Your task to perform on an android device: What's on my calendar tomorrow? Image 0: 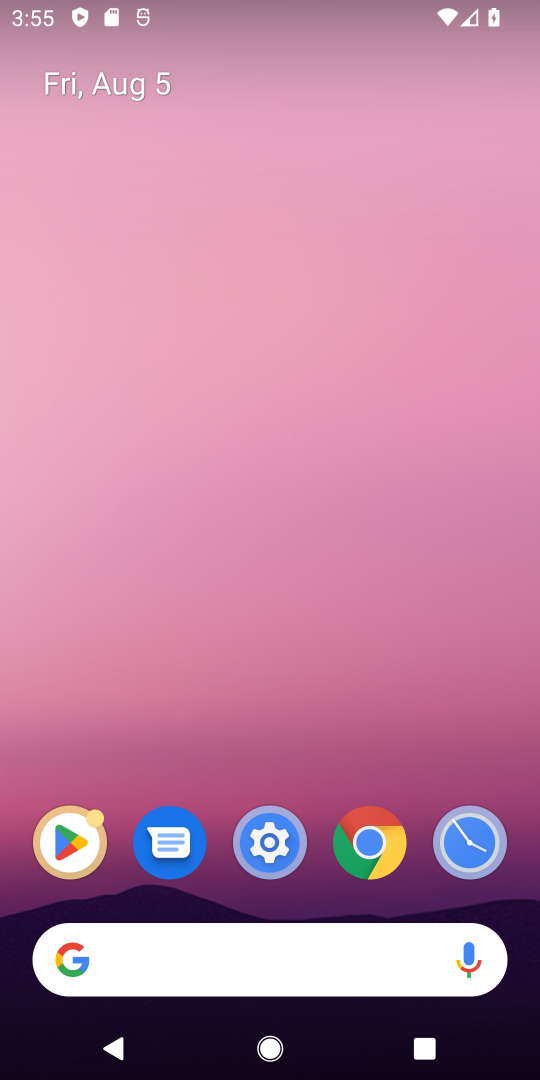
Step 0: drag from (433, 722) to (360, 328)
Your task to perform on an android device: What's on my calendar tomorrow? Image 1: 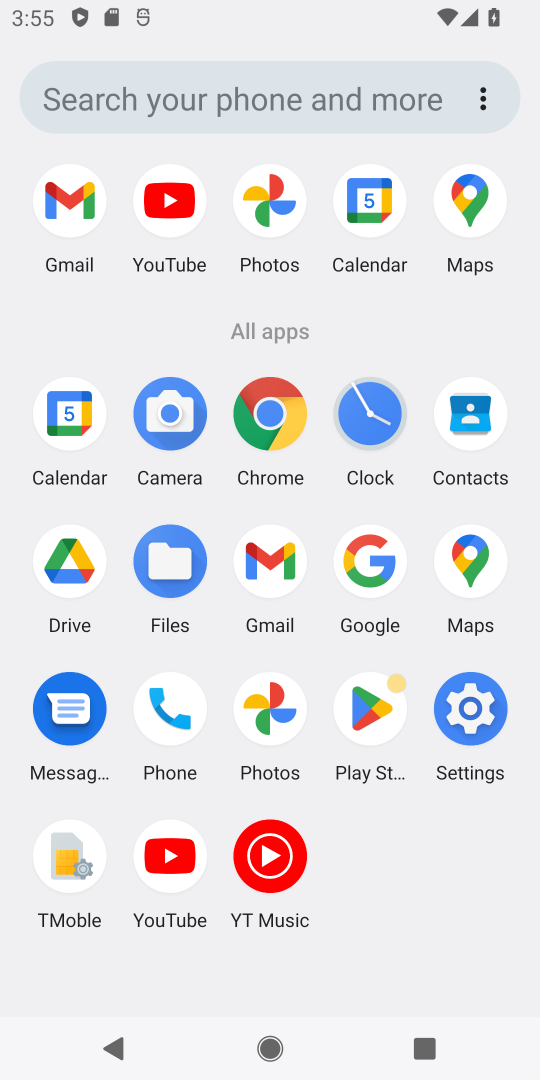
Step 1: click (72, 411)
Your task to perform on an android device: What's on my calendar tomorrow? Image 2: 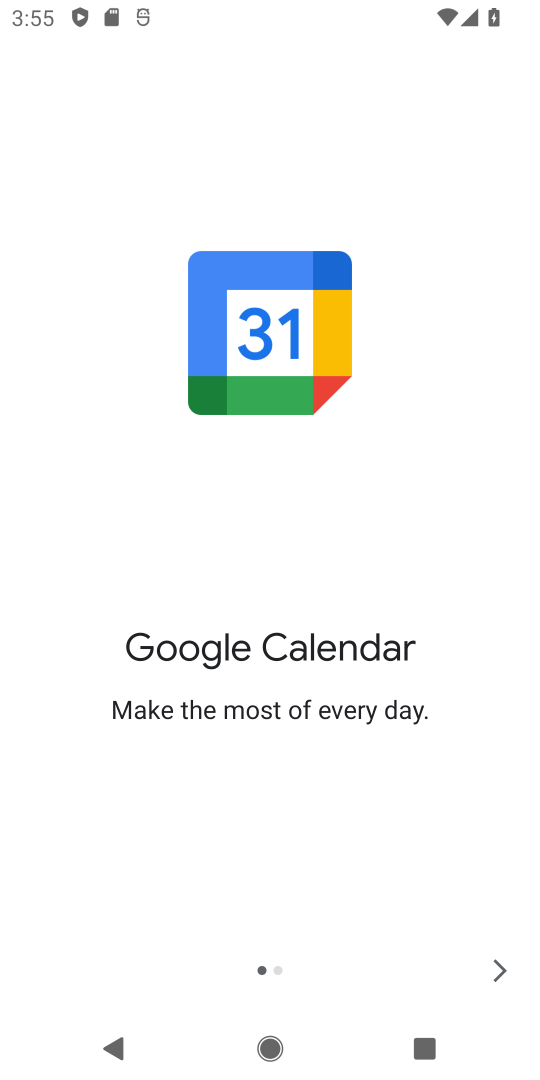
Step 2: click (503, 977)
Your task to perform on an android device: What's on my calendar tomorrow? Image 3: 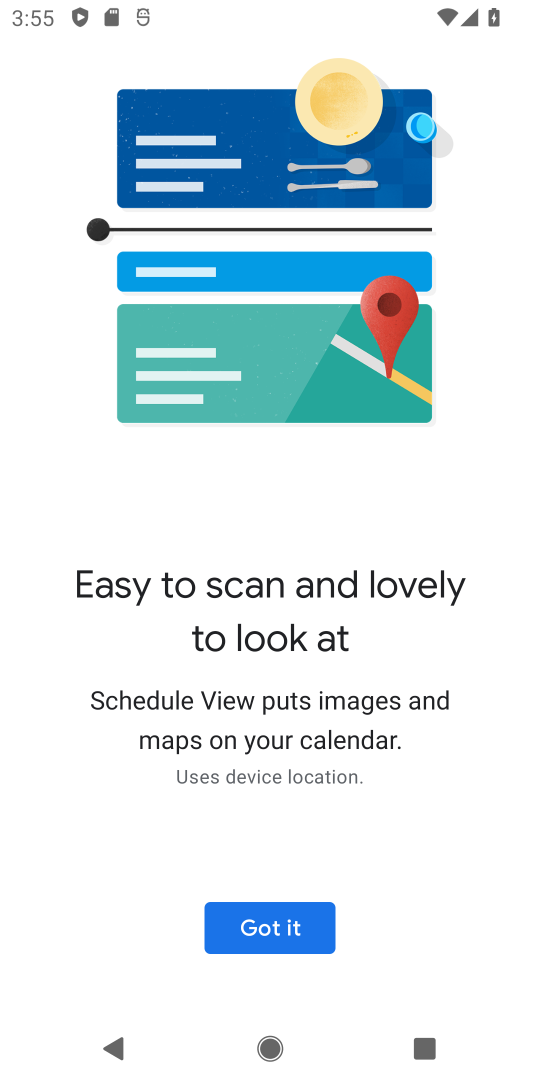
Step 3: click (258, 928)
Your task to perform on an android device: What's on my calendar tomorrow? Image 4: 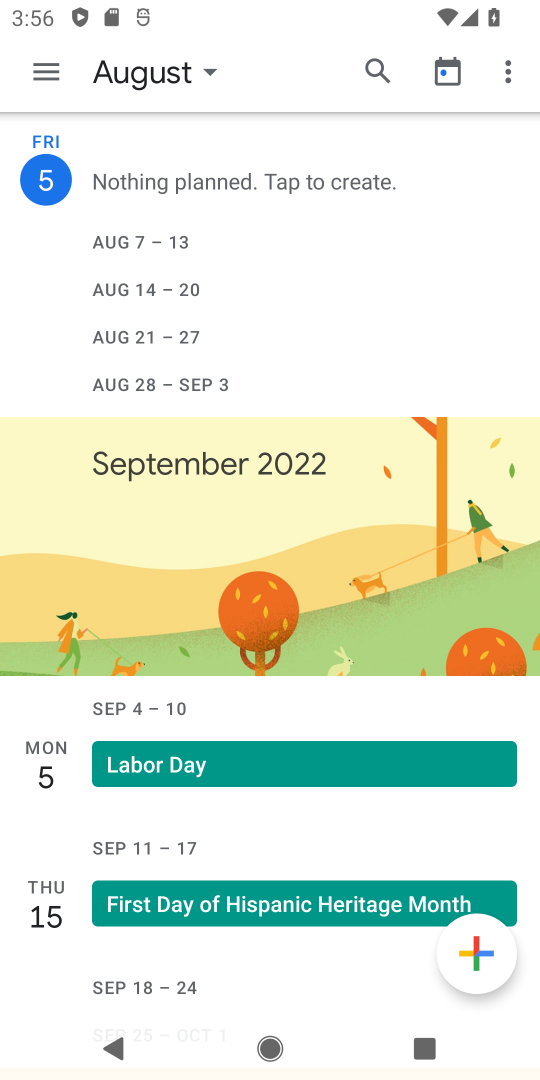
Step 4: click (27, 64)
Your task to perform on an android device: What's on my calendar tomorrow? Image 5: 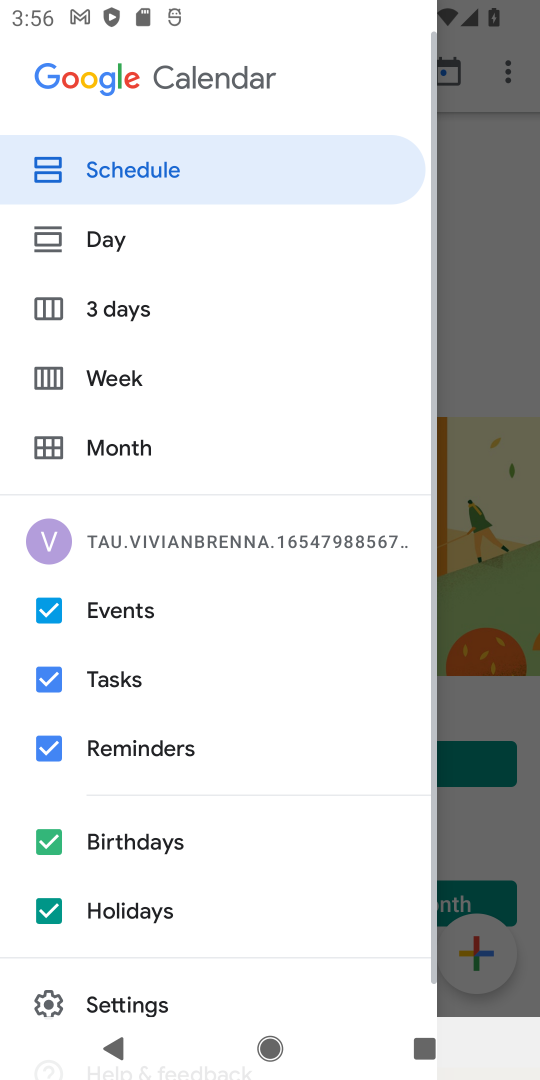
Step 5: click (145, 235)
Your task to perform on an android device: What's on my calendar tomorrow? Image 6: 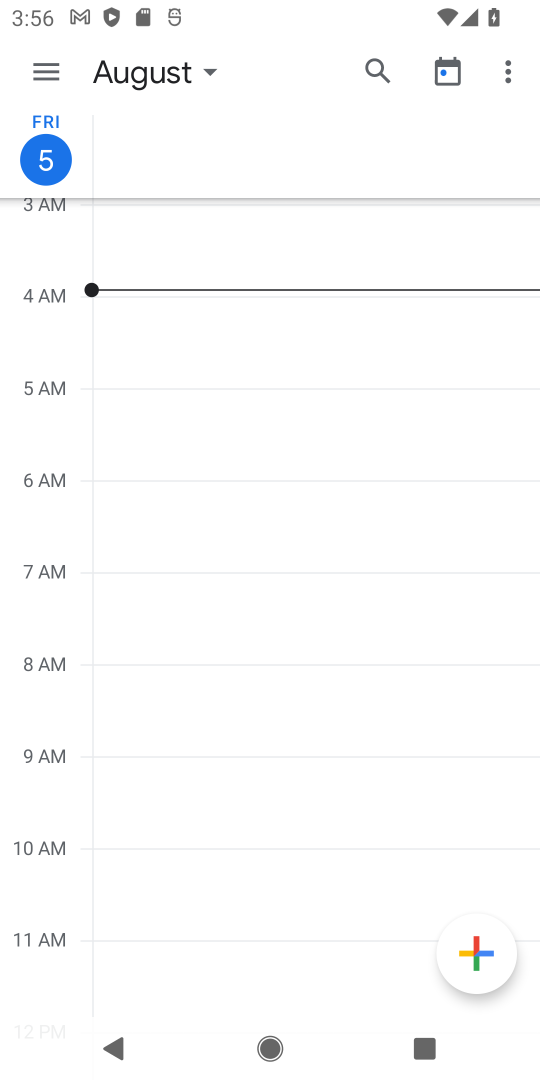
Step 6: click (170, 71)
Your task to perform on an android device: What's on my calendar tomorrow? Image 7: 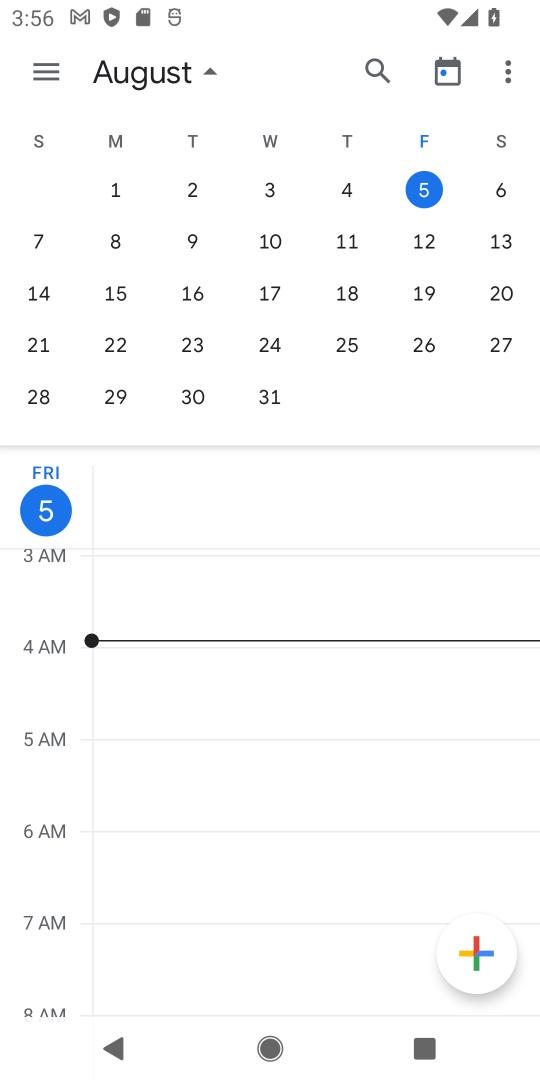
Step 7: click (506, 195)
Your task to perform on an android device: What's on my calendar tomorrow? Image 8: 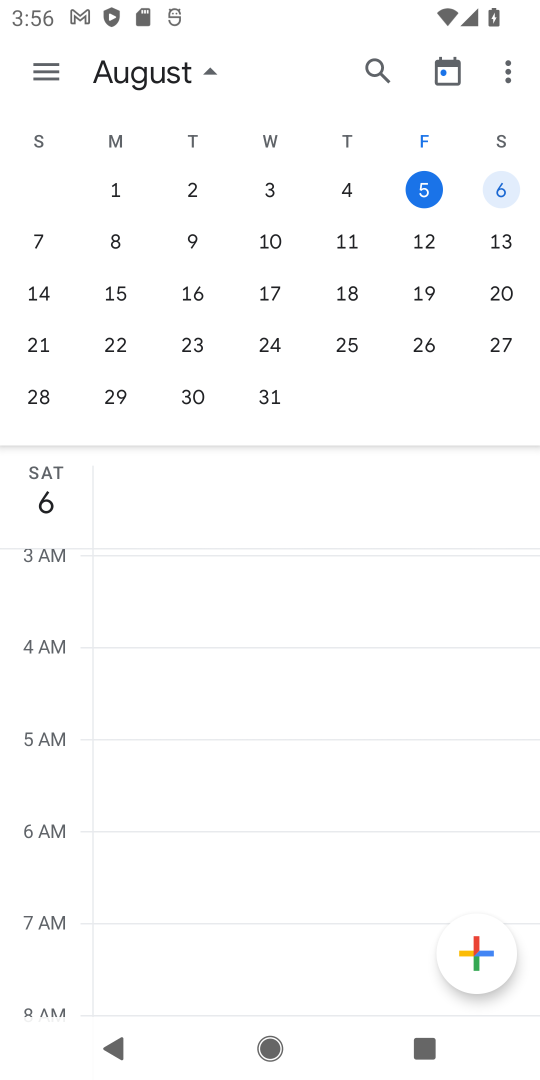
Step 8: task complete